Your task to perform on an android device: Search for sushi restaurants on Maps Image 0: 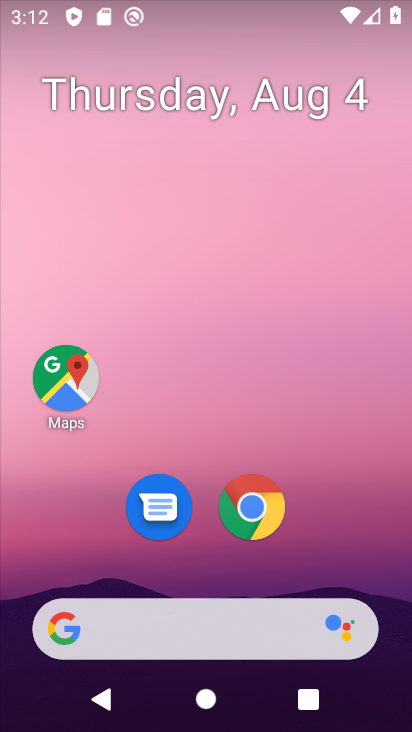
Step 0: click (49, 386)
Your task to perform on an android device: Search for sushi restaurants on Maps Image 1: 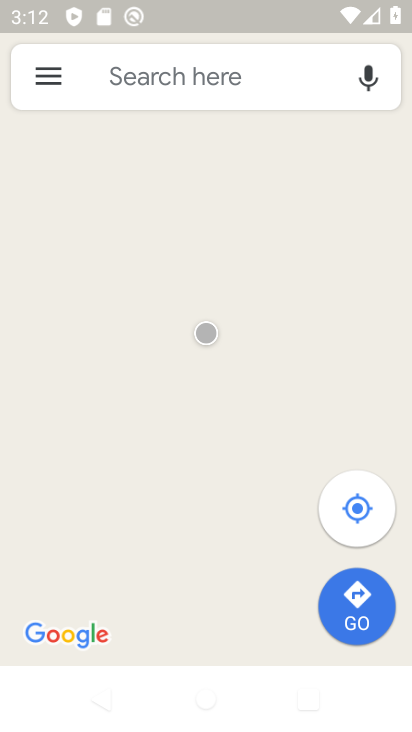
Step 1: click (116, 79)
Your task to perform on an android device: Search for sushi restaurants on Maps Image 2: 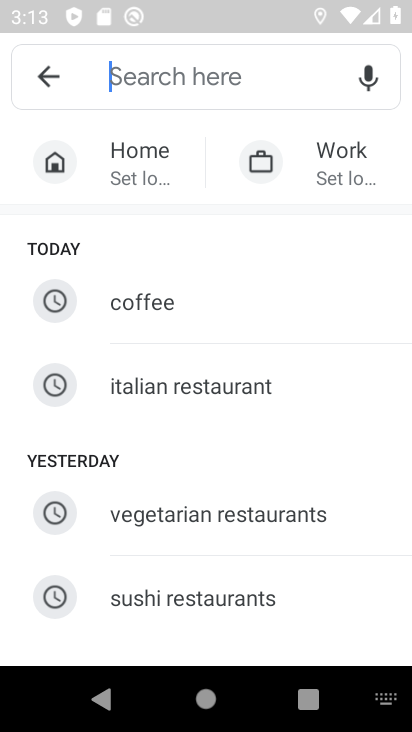
Step 2: type "sushi restaurants"
Your task to perform on an android device: Search for sushi restaurants on Maps Image 3: 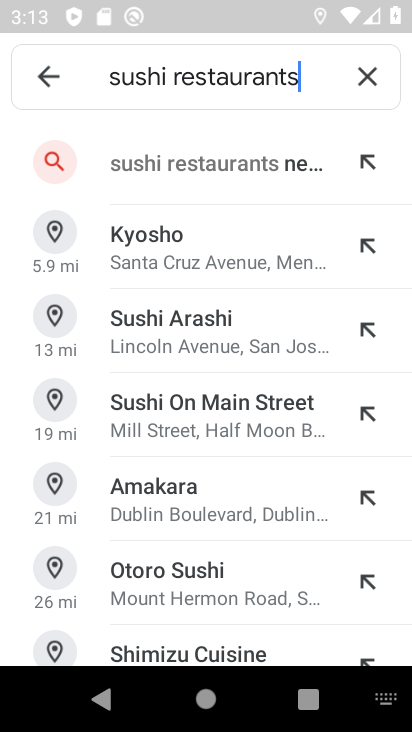
Step 3: type ""
Your task to perform on an android device: Search for sushi restaurants on Maps Image 4: 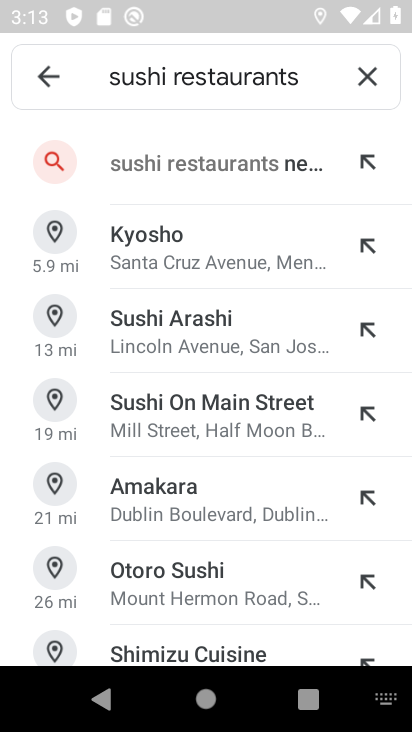
Step 4: type ""
Your task to perform on an android device: Search for sushi restaurants on Maps Image 5: 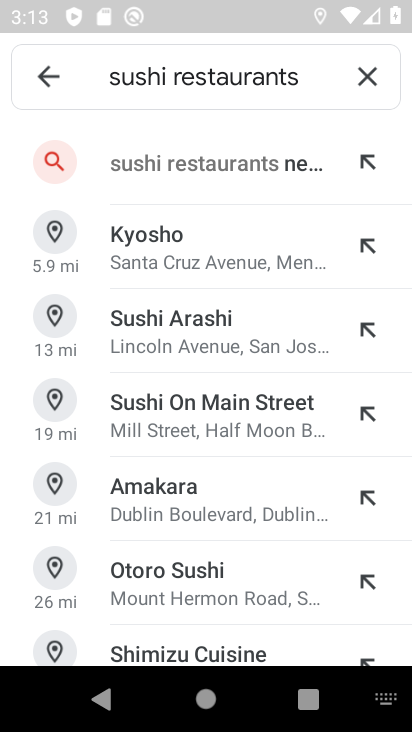
Step 5: type ""
Your task to perform on an android device: Search for sushi restaurants on Maps Image 6: 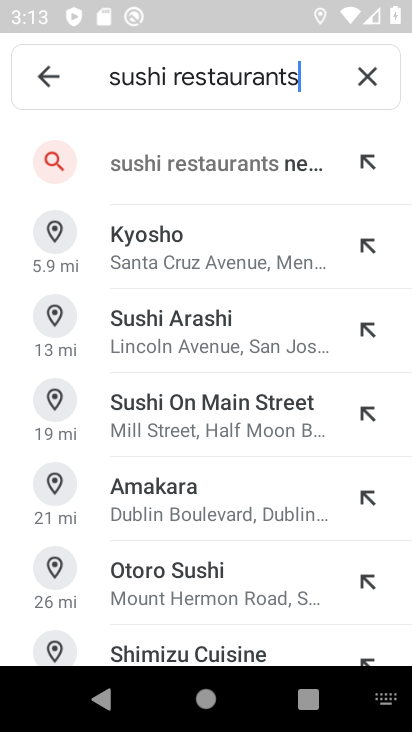
Step 6: type ""
Your task to perform on an android device: Search for sushi restaurants on Maps Image 7: 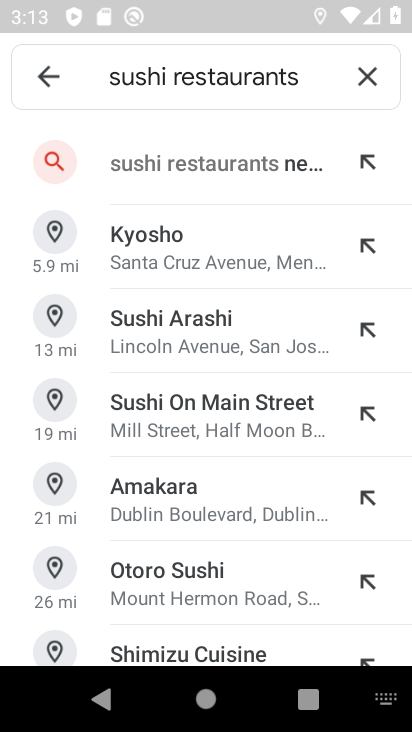
Step 7: task complete